Your task to perform on an android device: Open Google Maps Image 0: 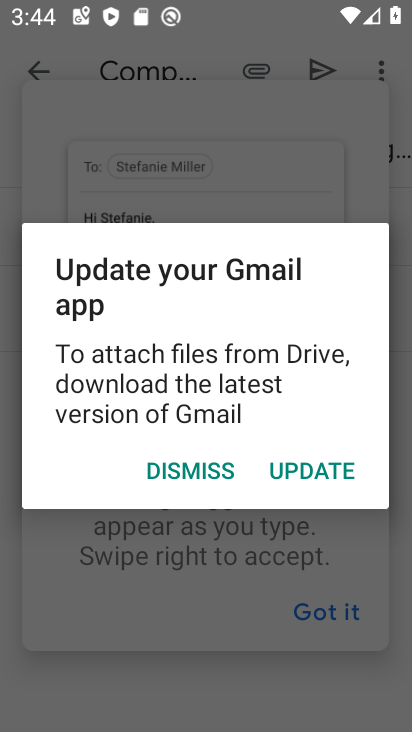
Step 0: press home button
Your task to perform on an android device: Open Google Maps Image 1: 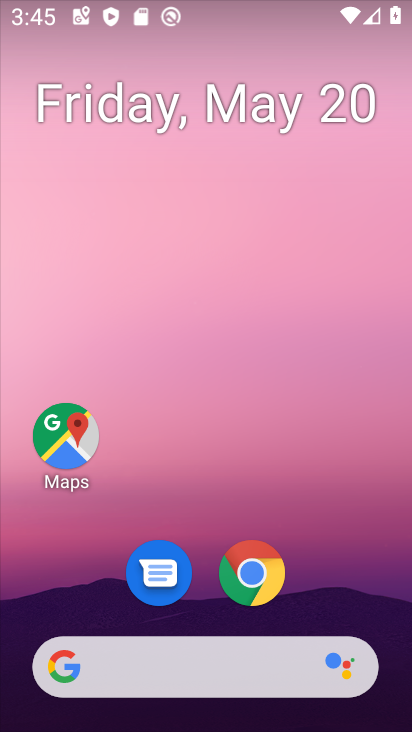
Step 1: click (63, 434)
Your task to perform on an android device: Open Google Maps Image 2: 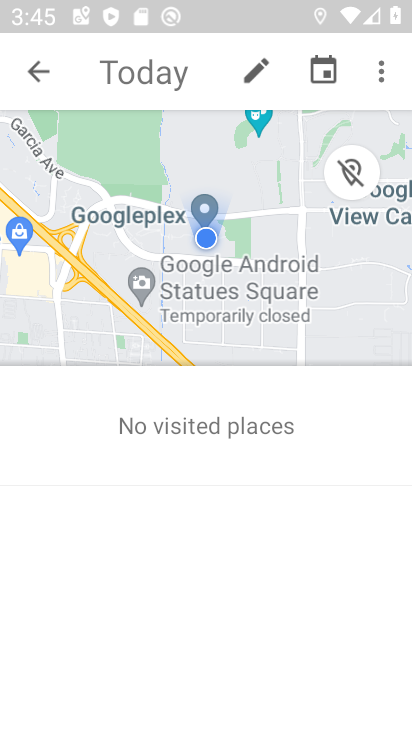
Step 2: task complete